Your task to perform on an android device: Go to Maps Image 0: 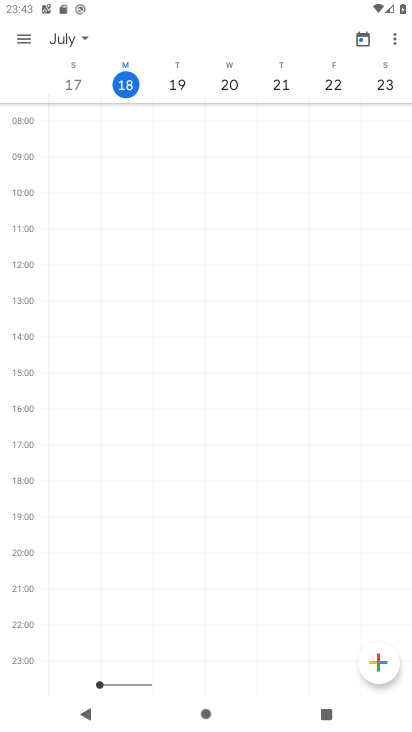
Step 0: press home button
Your task to perform on an android device: Go to Maps Image 1: 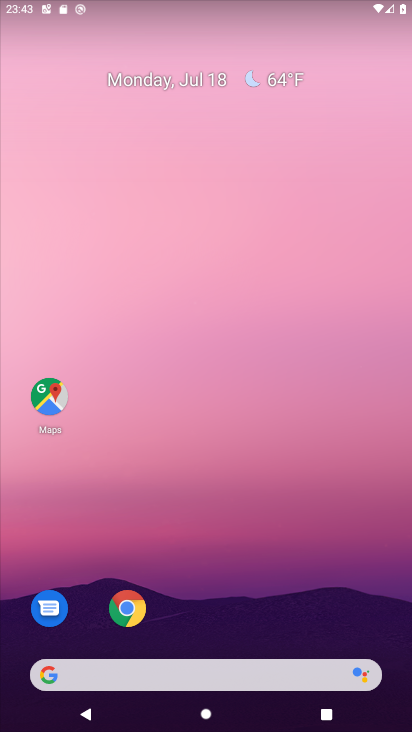
Step 1: drag from (187, 611) to (276, 136)
Your task to perform on an android device: Go to Maps Image 2: 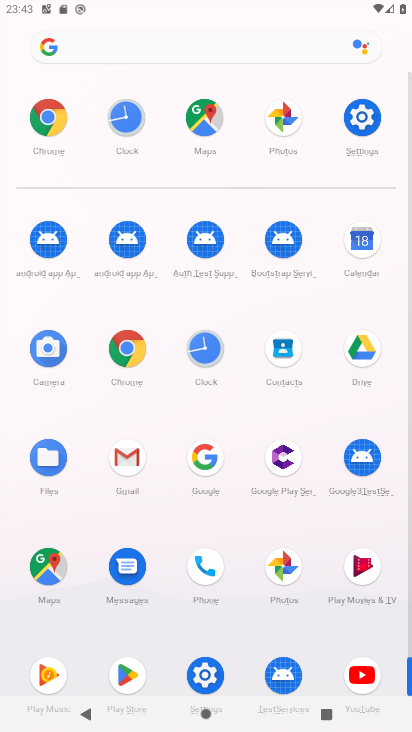
Step 2: click (49, 571)
Your task to perform on an android device: Go to Maps Image 3: 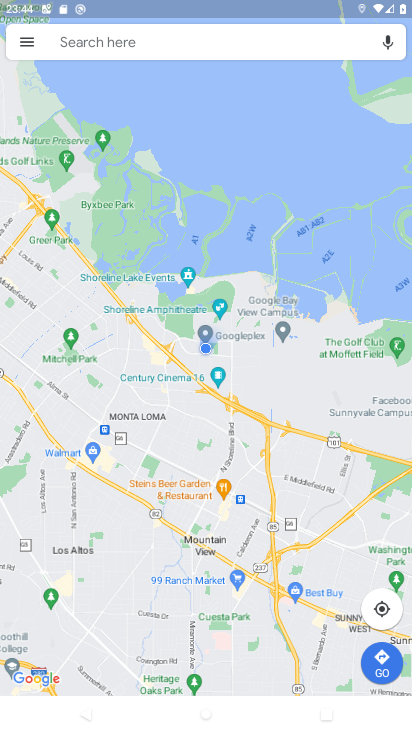
Step 3: task complete